Your task to perform on an android device: Clear the cart on amazon.com. Image 0: 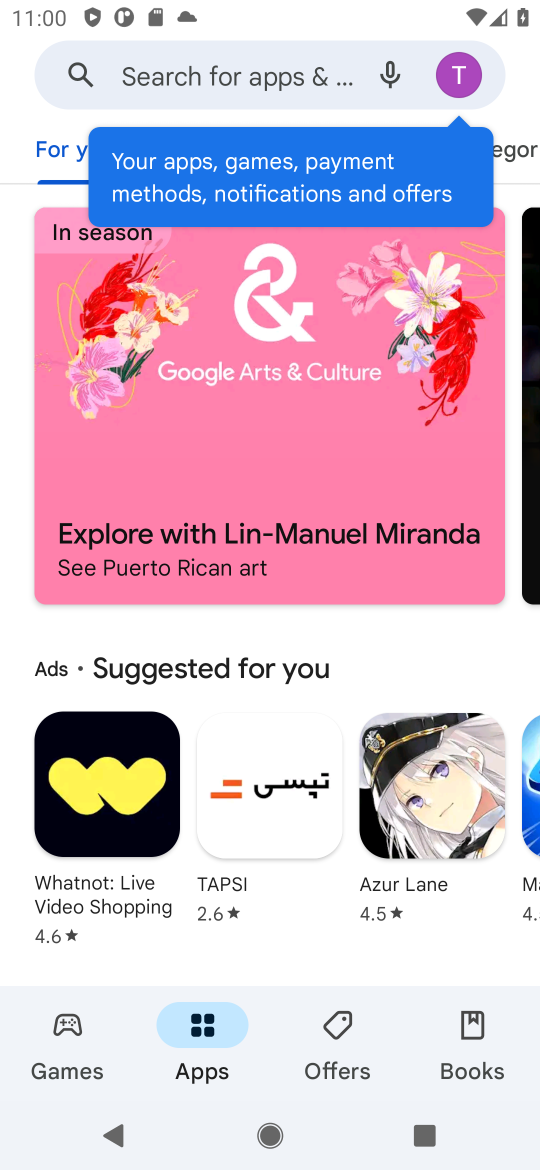
Step 0: press home button
Your task to perform on an android device: Clear the cart on amazon.com. Image 1: 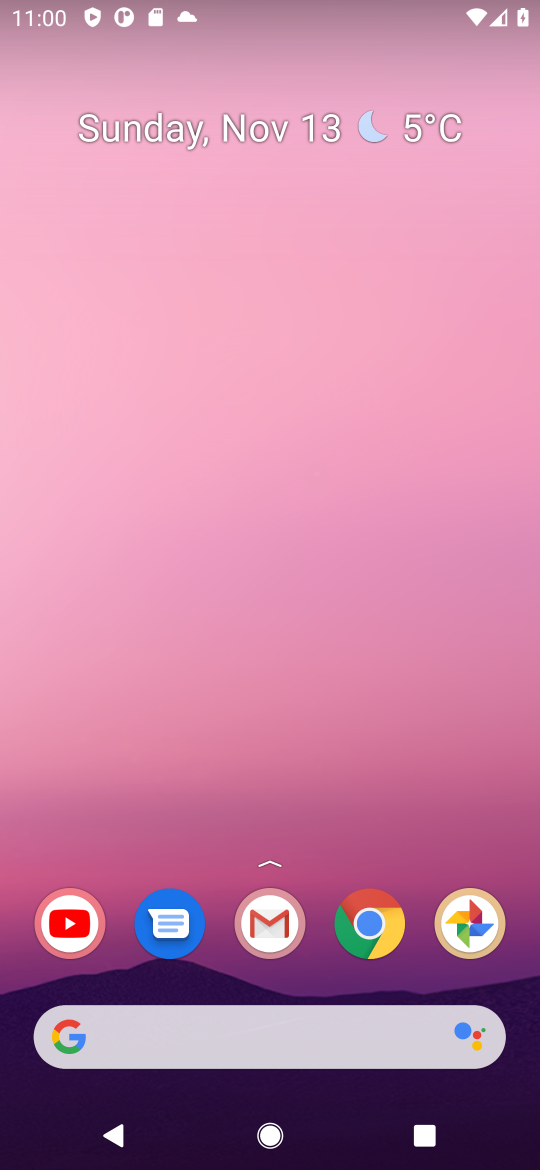
Step 1: click (382, 933)
Your task to perform on an android device: Clear the cart on amazon.com. Image 2: 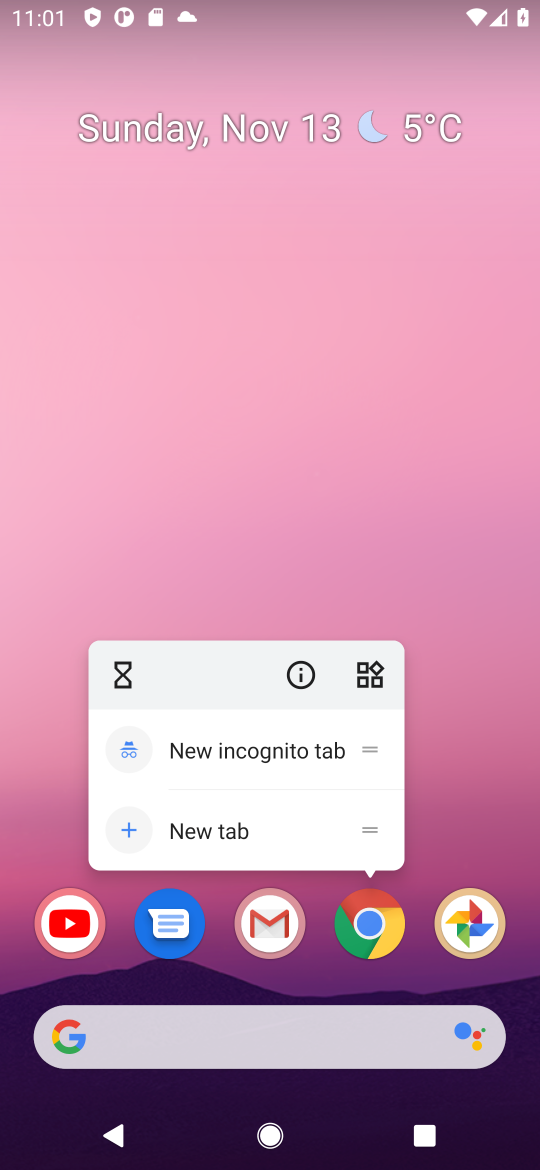
Step 2: click (376, 951)
Your task to perform on an android device: Clear the cart on amazon.com. Image 3: 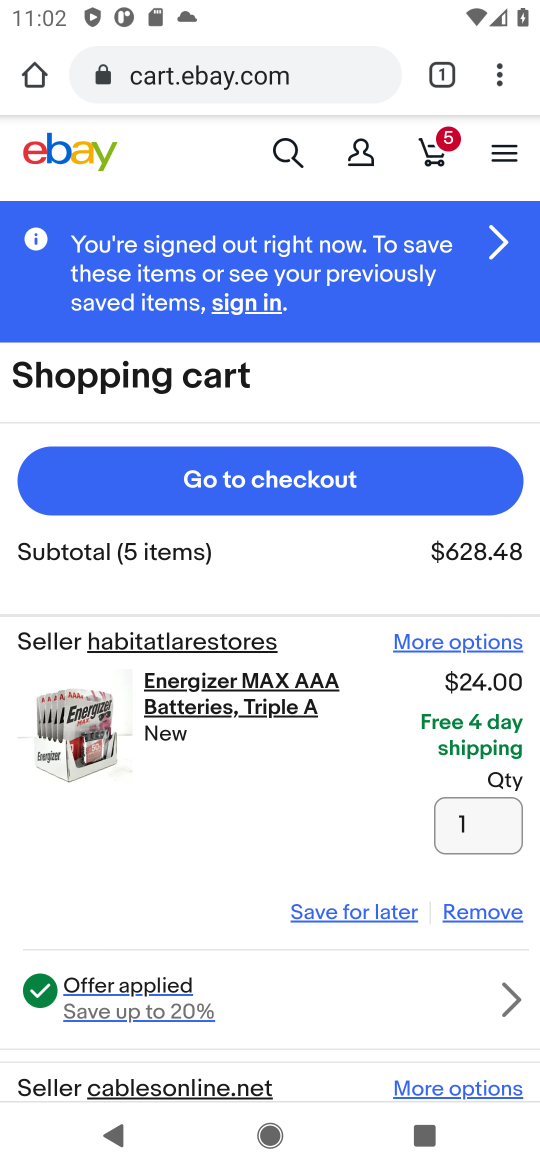
Step 3: click (229, 65)
Your task to perform on an android device: Clear the cart on amazon.com. Image 4: 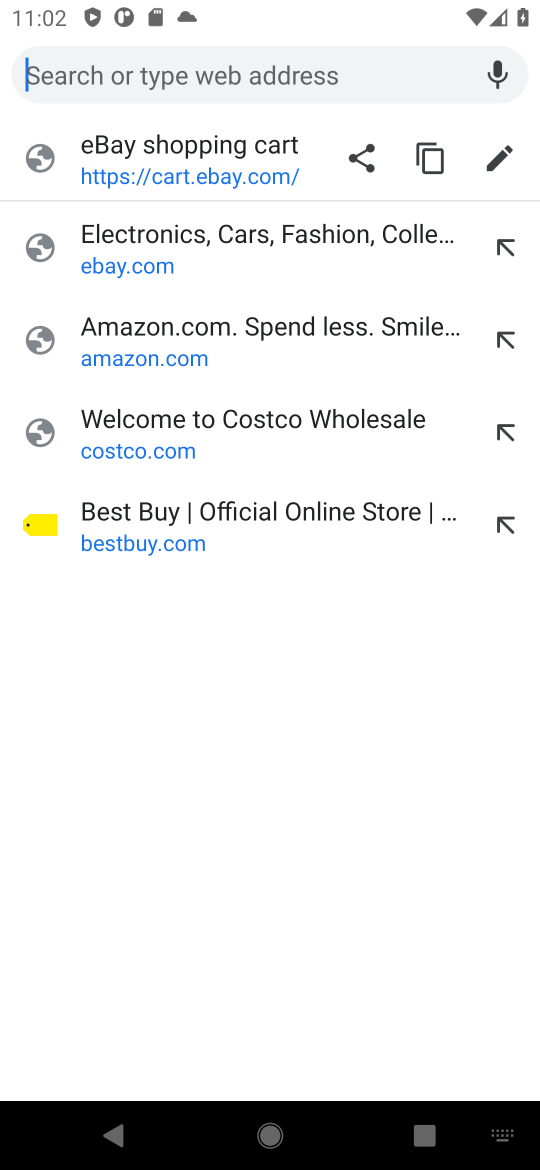
Step 4: type "amazon.com"
Your task to perform on an android device: Clear the cart on amazon.com. Image 5: 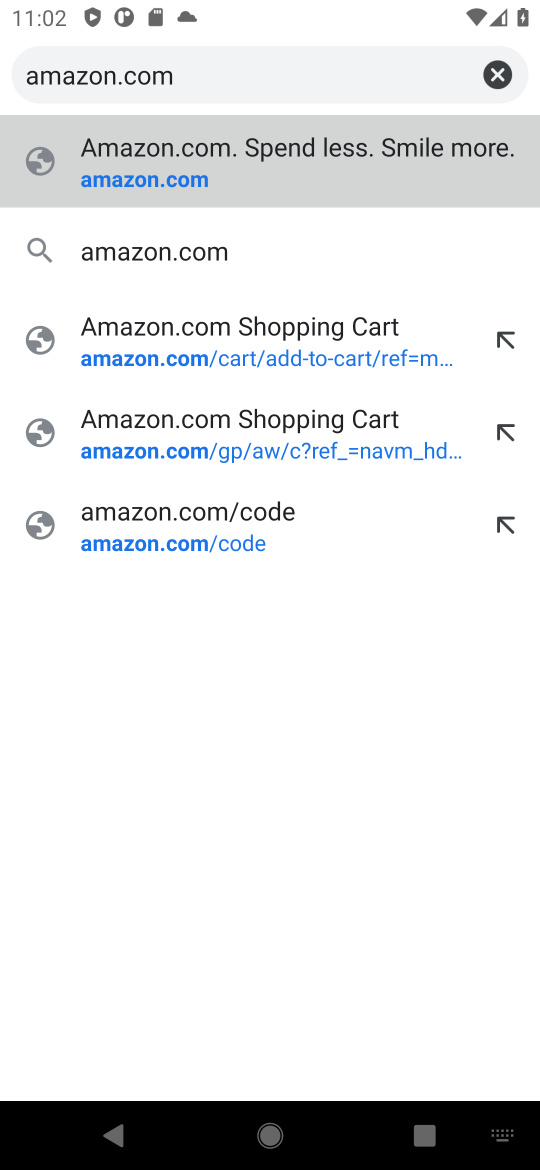
Step 5: press enter
Your task to perform on an android device: Clear the cart on amazon.com. Image 6: 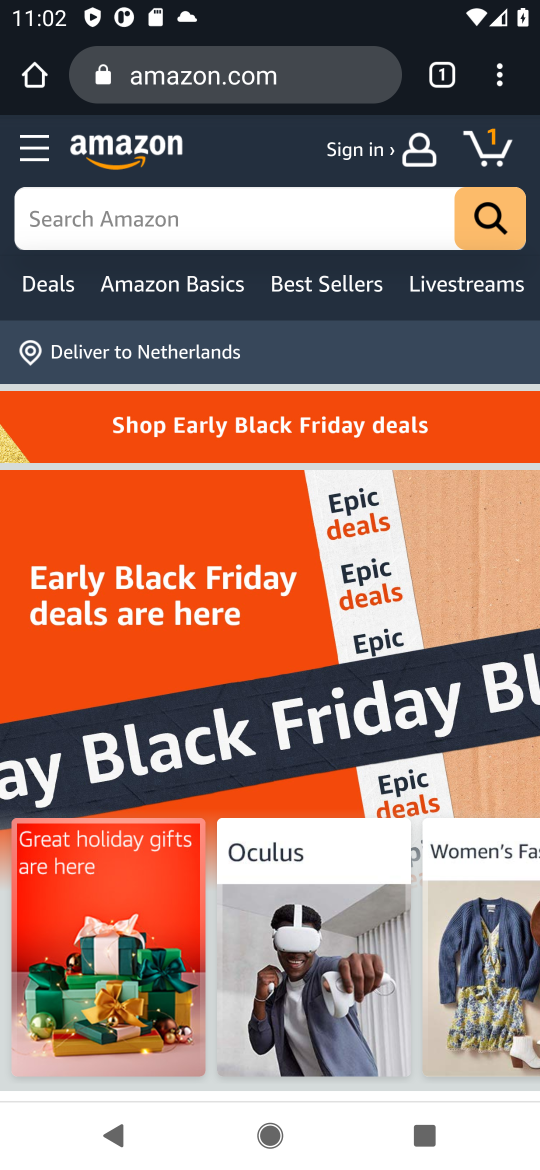
Step 6: click (476, 163)
Your task to perform on an android device: Clear the cart on amazon.com. Image 7: 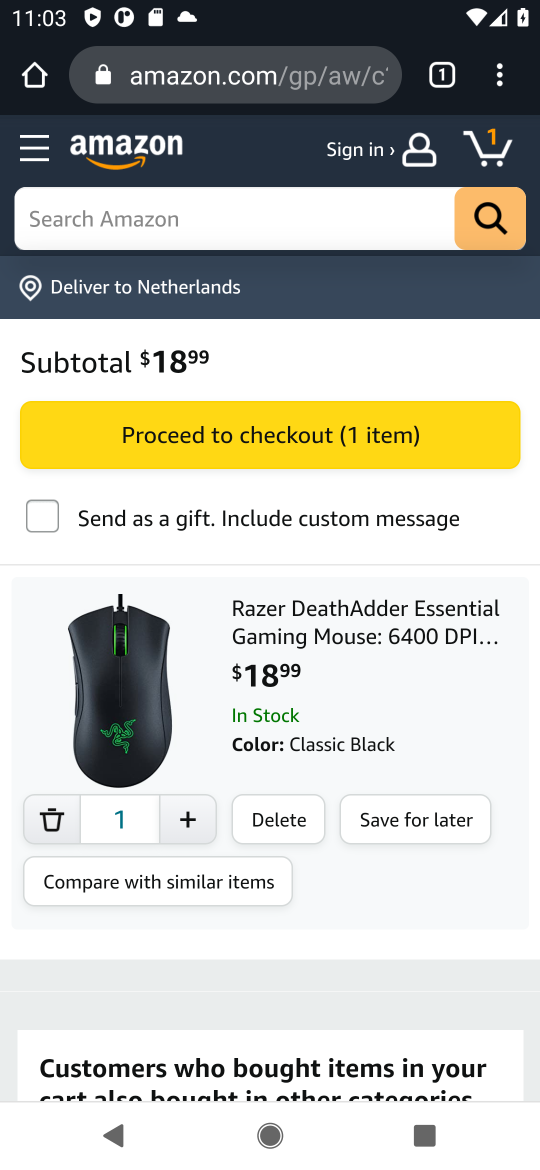
Step 7: click (498, 153)
Your task to perform on an android device: Clear the cart on amazon.com. Image 8: 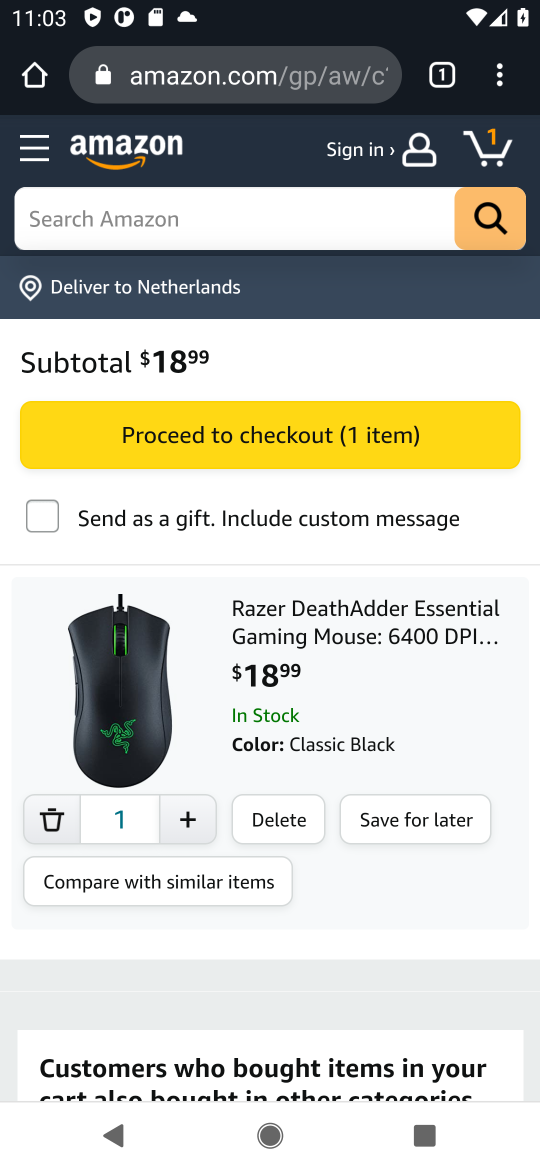
Step 8: click (268, 812)
Your task to perform on an android device: Clear the cart on amazon.com. Image 9: 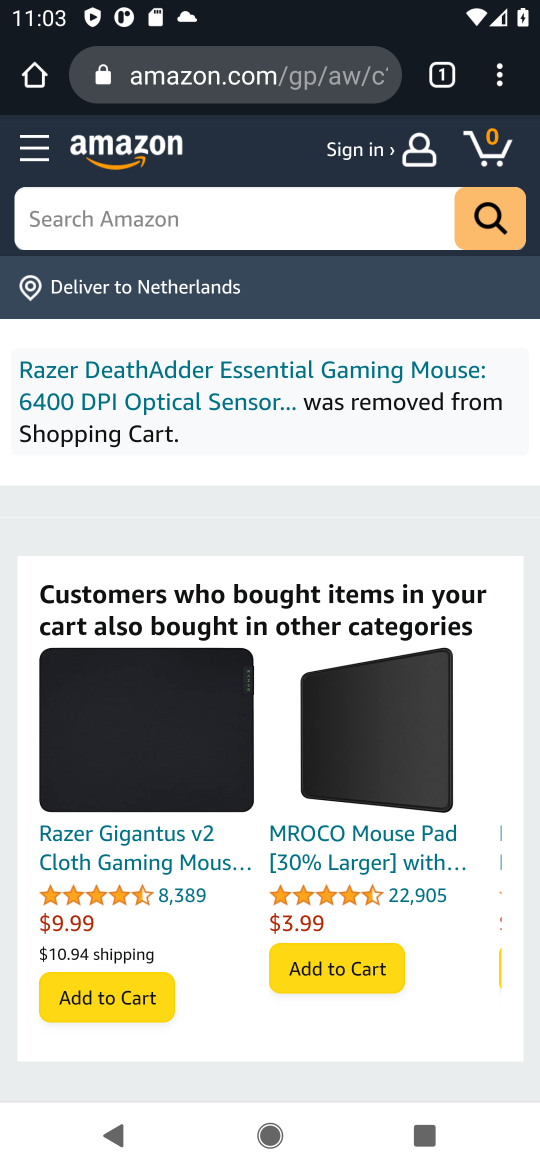
Step 9: task complete